Your task to perform on an android device: open a bookmark in the chrome app Image 0: 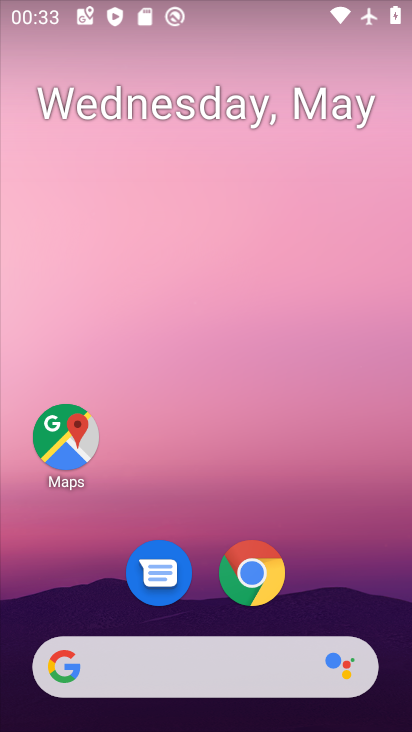
Step 0: drag from (331, 566) to (289, 240)
Your task to perform on an android device: open a bookmark in the chrome app Image 1: 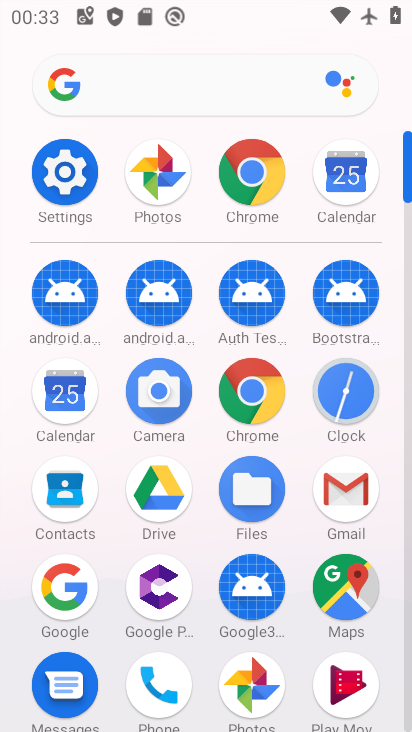
Step 1: click (252, 168)
Your task to perform on an android device: open a bookmark in the chrome app Image 2: 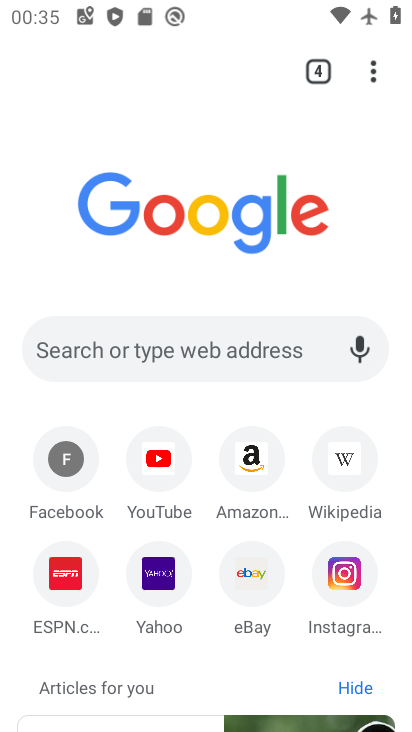
Step 2: click (378, 69)
Your task to perform on an android device: open a bookmark in the chrome app Image 3: 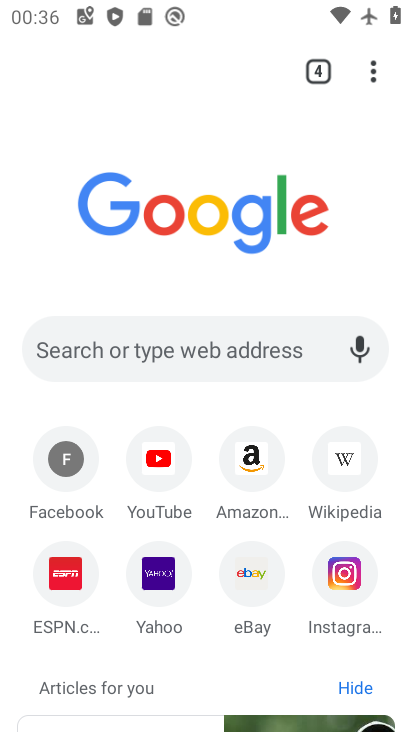
Step 3: click (352, 55)
Your task to perform on an android device: open a bookmark in the chrome app Image 4: 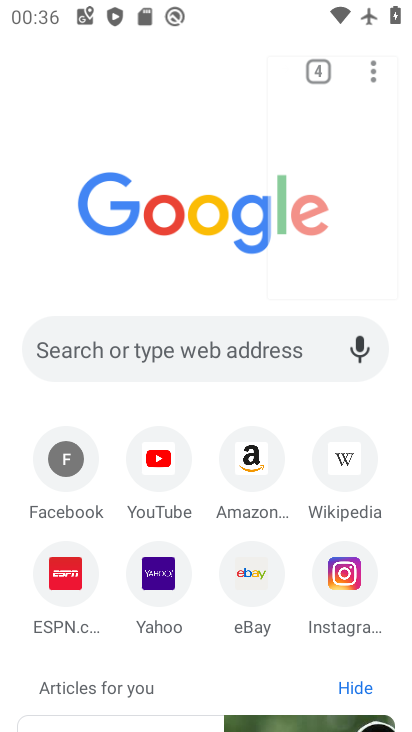
Step 4: click (370, 67)
Your task to perform on an android device: open a bookmark in the chrome app Image 5: 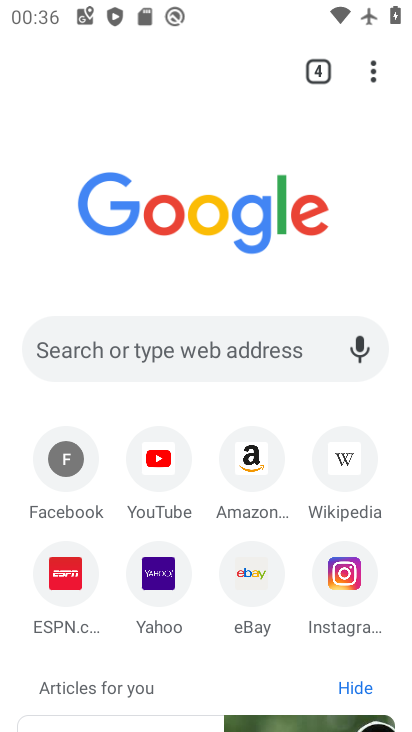
Step 5: click (373, 70)
Your task to perform on an android device: open a bookmark in the chrome app Image 6: 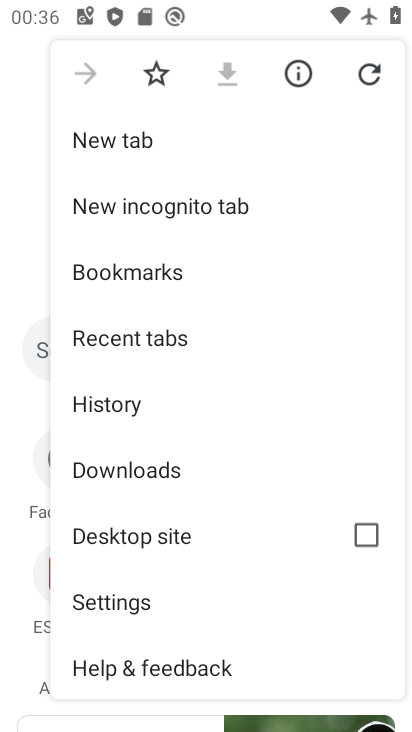
Step 6: click (153, 273)
Your task to perform on an android device: open a bookmark in the chrome app Image 7: 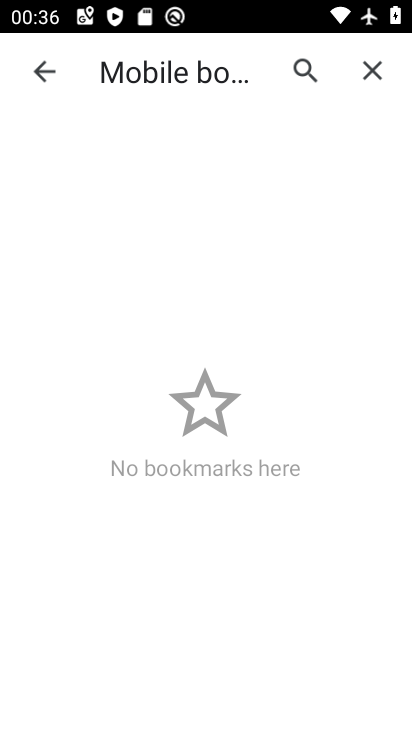
Step 7: task complete